Your task to perform on an android device: What is the recent news? Image 0: 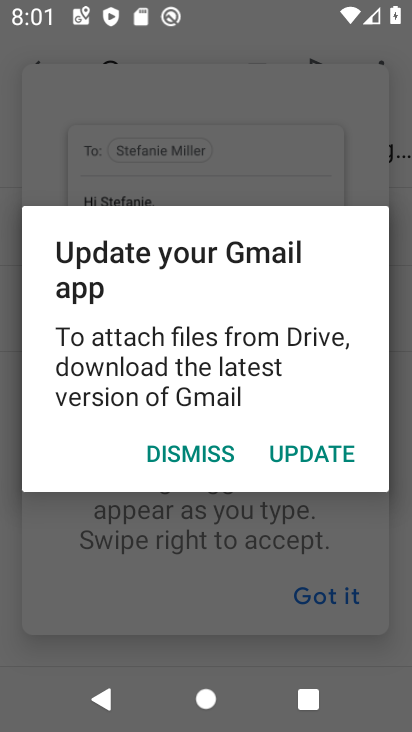
Step 0: press home button
Your task to perform on an android device: What is the recent news? Image 1: 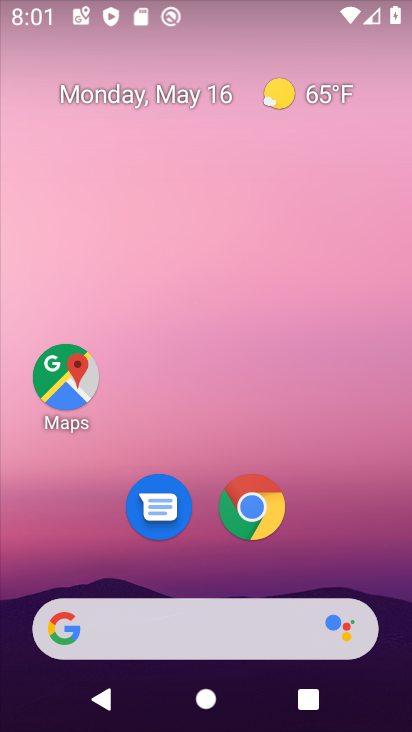
Step 1: task complete